Your task to perform on an android device: Check the news Image 0: 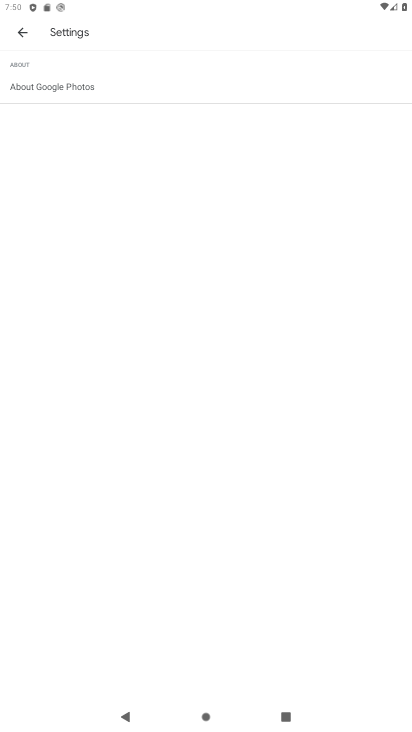
Step 0: press home button
Your task to perform on an android device: Check the news Image 1: 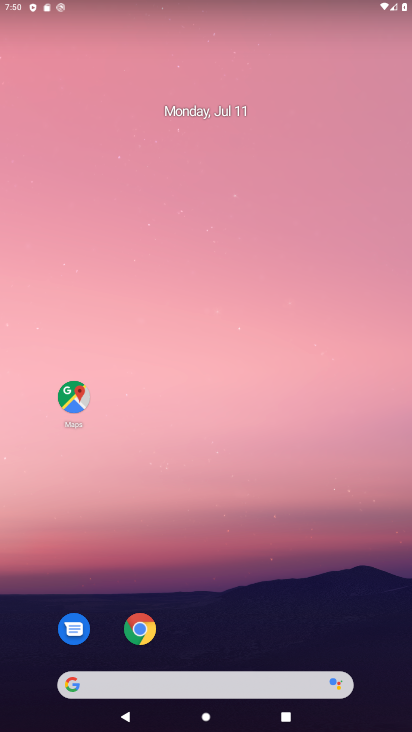
Step 1: task complete